Your task to perform on an android device: Go to display settings Image 0: 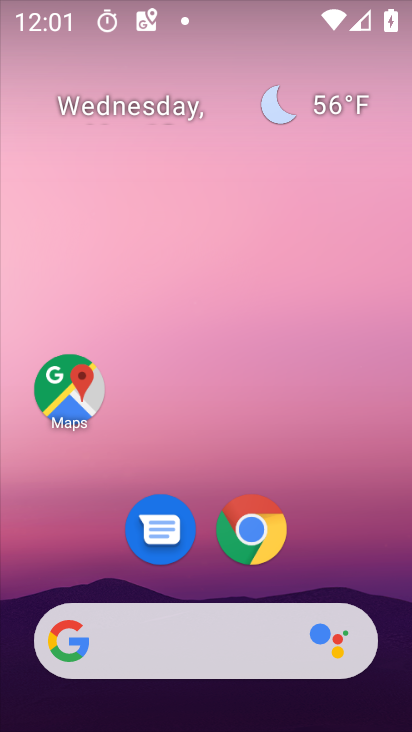
Step 0: drag from (216, 582) to (261, 128)
Your task to perform on an android device: Go to display settings Image 1: 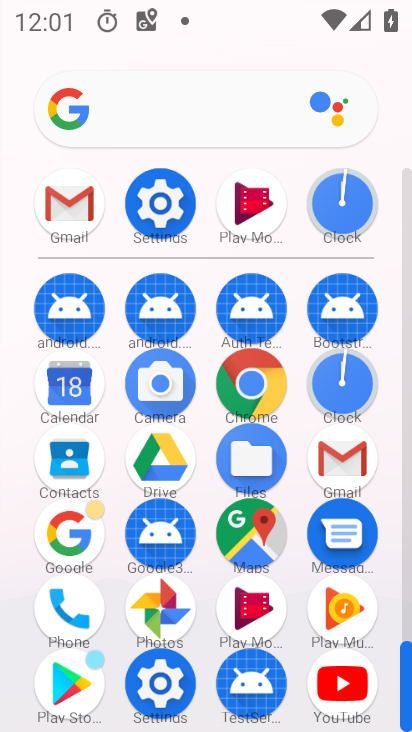
Step 1: click (172, 191)
Your task to perform on an android device: Go to display settings Image 2: 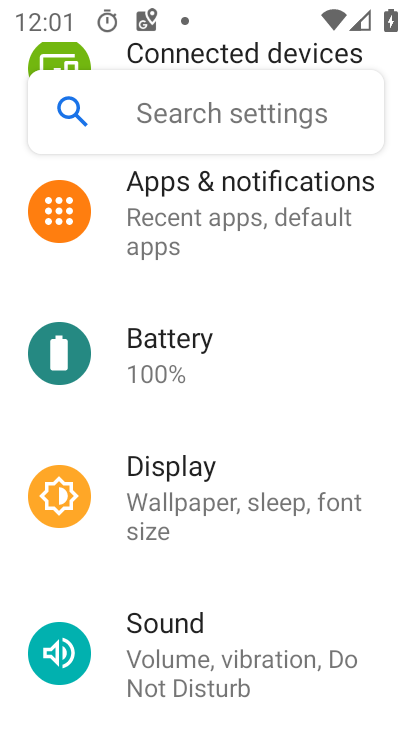
Step 2: click (179, 469)
Your task to perform on an android device: Go to display settings Image 3: 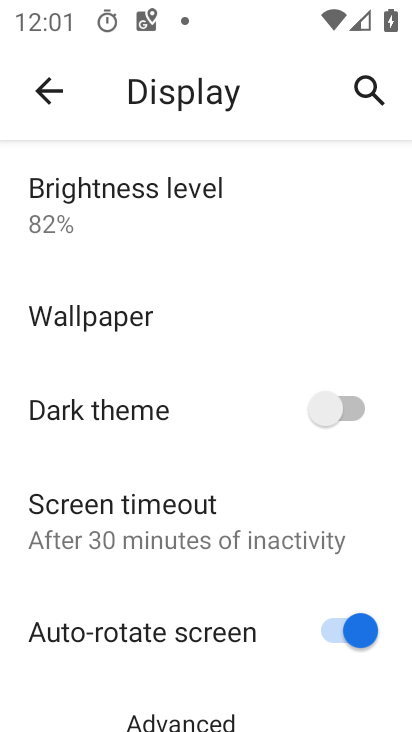
Step 3: task complete